Your task to perform on an android device: What is the news today? Image 0: 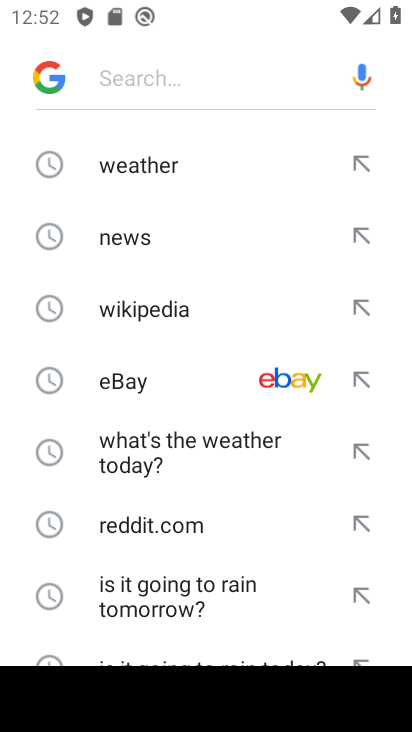
Step 0: press home button
Your task to perform on an android device: What is the news today? Image 1: 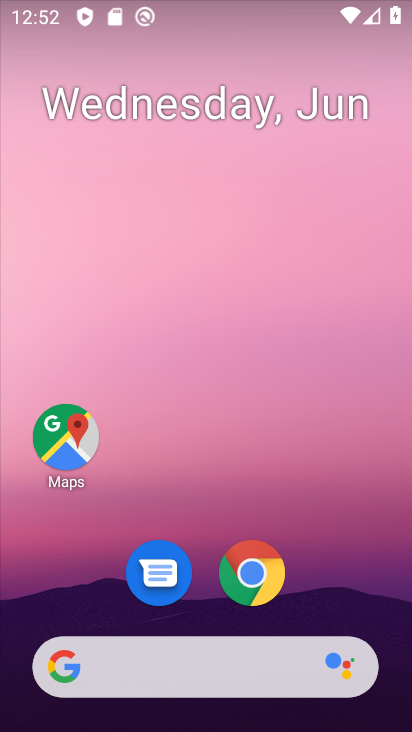
Step 1: click (281, 585)
Your task to perform on an android device: What is the news today? Image 2: 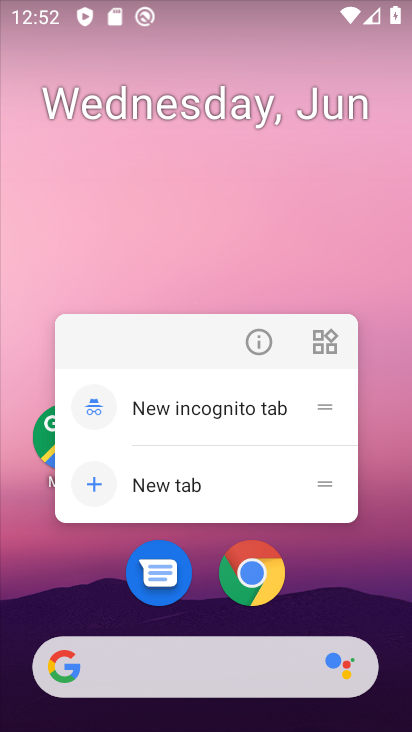
Step 2: click (270, 595)
Your task to perform on an android device: What is the news today? Image 3: 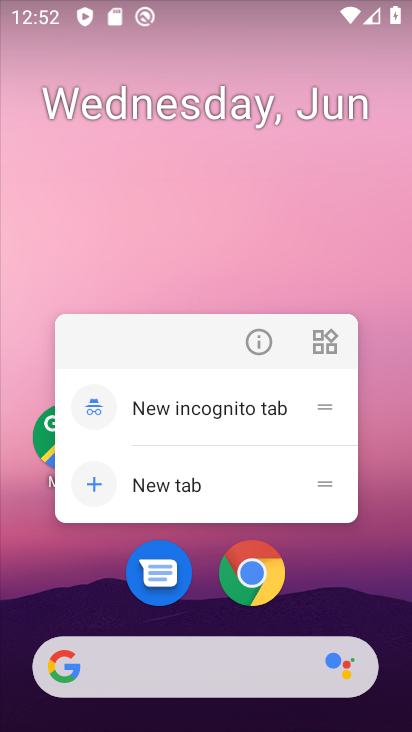
Step 3: click (270, 585)
Your task to perform on an android device: What is the news today? Image 4: 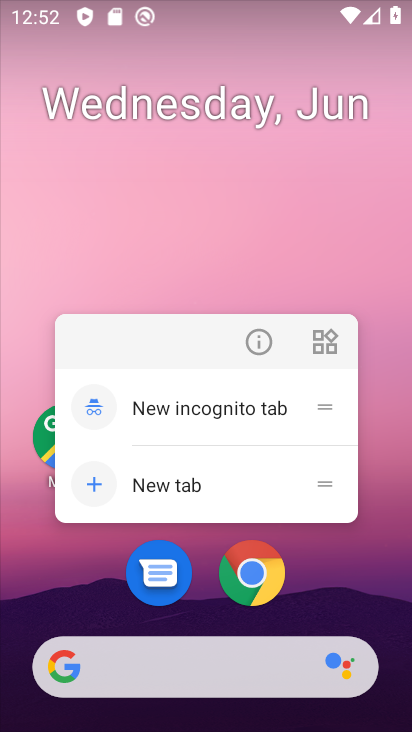
Step 4: click (267, 582)
Your task to perform on an android device: What is the news today? Image 5: 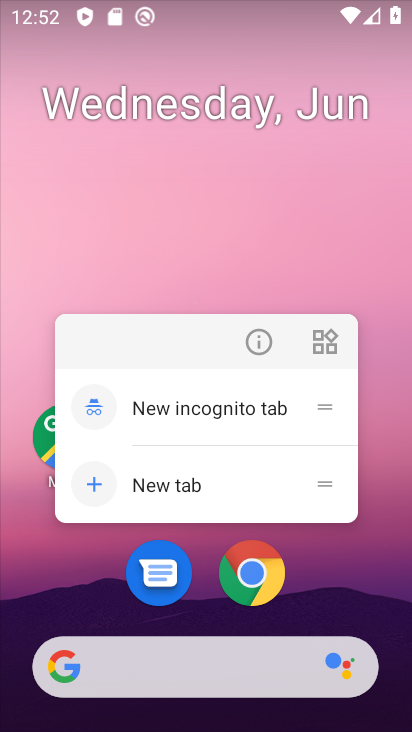
Step 5: click (245, 595)
Your task to perform on an android device: What is the news today? Image 6: 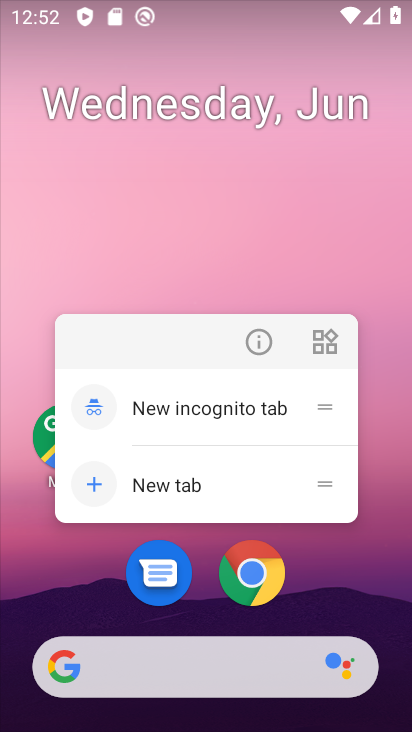
Step 6: drag from (334, 599) to (291, 217)
Your task to perform on an android device: What is the news today? Image 7: 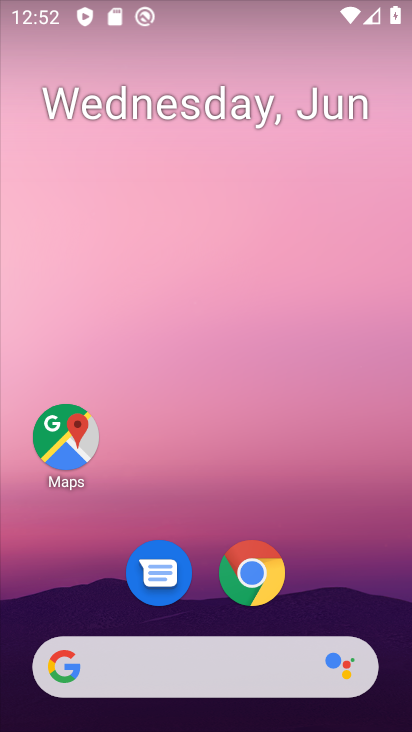
Step 7: drag from (349, 559) to (299, 117)
Your task to perform on an android device: What is the news today? Image 8: 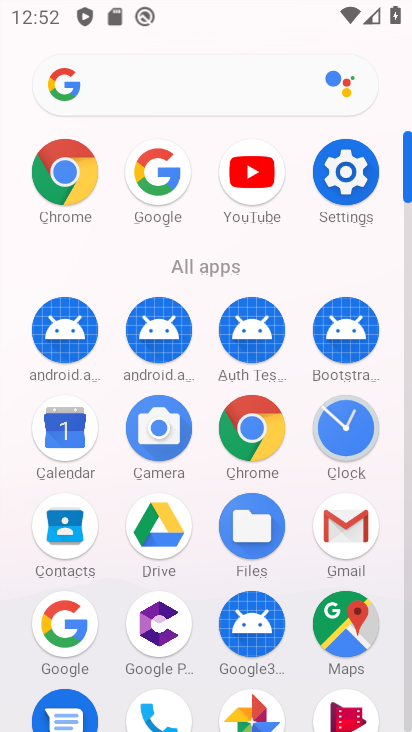
Step 8: click (56, 171)
Your task to perform on an android device: What is the news today? Image 9: 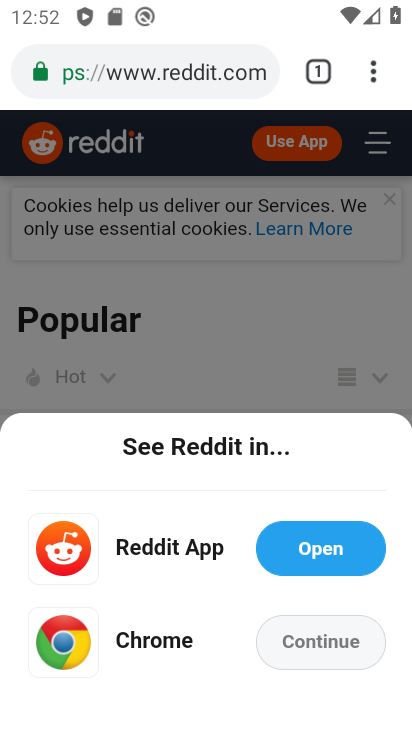
Step 9: click (231, 67)
Your task to perform on an android device: What is the news today? Image 10: 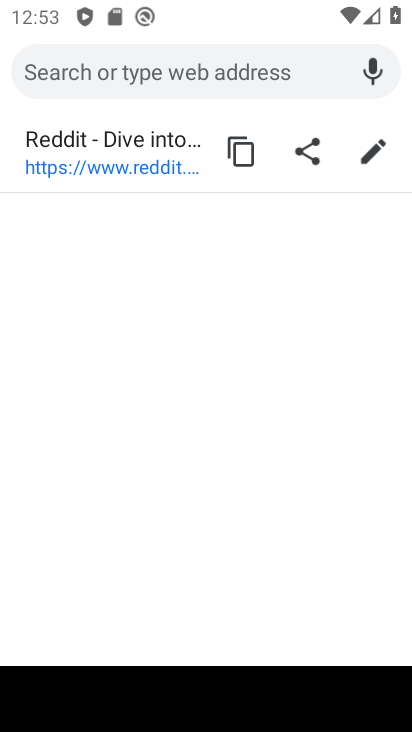
Step 10: type "what is the news today"
Your task to perform on an android device: What is the news today? Image 11: 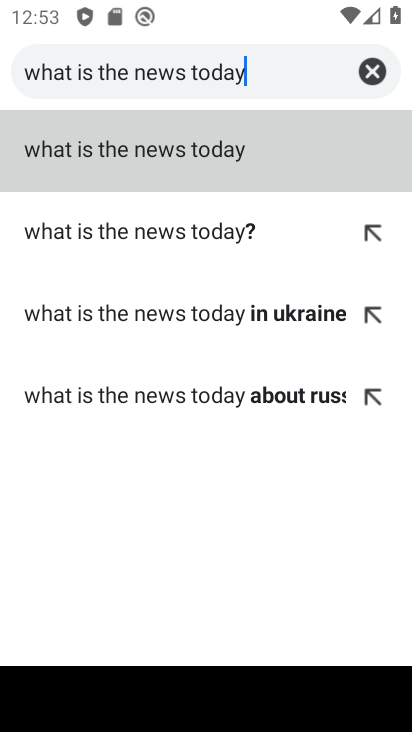
Step 11: click (44, 145)
Your task to perform on an android device: What is the news today? Image 12: 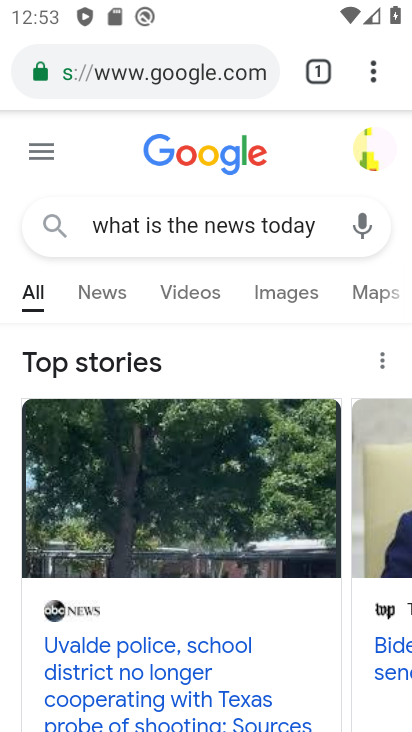
Step 12: task complete